Your task to perform on an android device: see creations saved in the google photos Image 0: 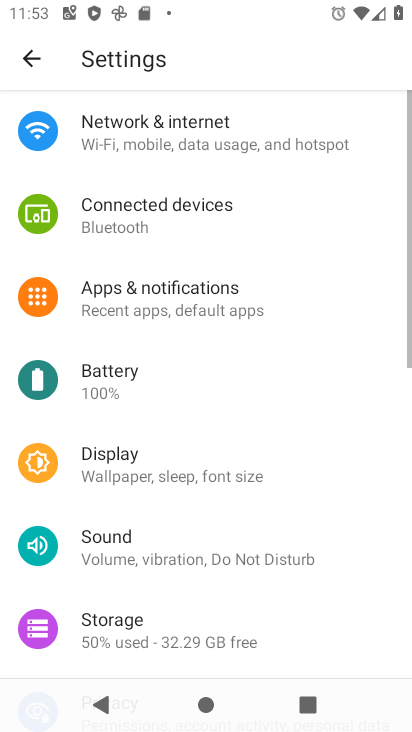
Step 0: press home button
Your task to perform on an android device: see creations saved in the google photos Image 1: 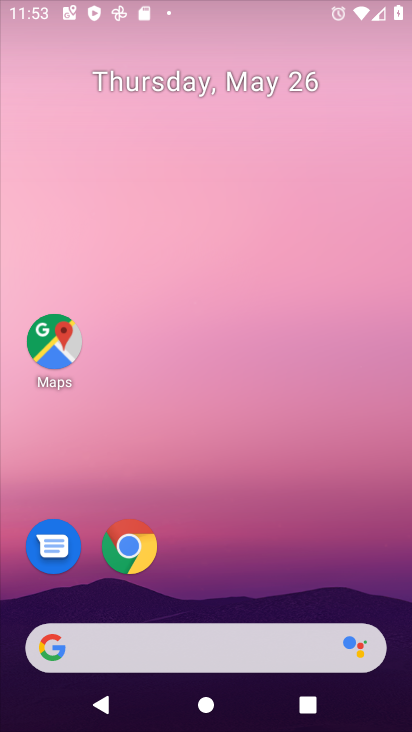
Step 1: drag from (224, 585) to (197, 98)
Your task to perform on an android device: see creations saved in the google photos Image 2: 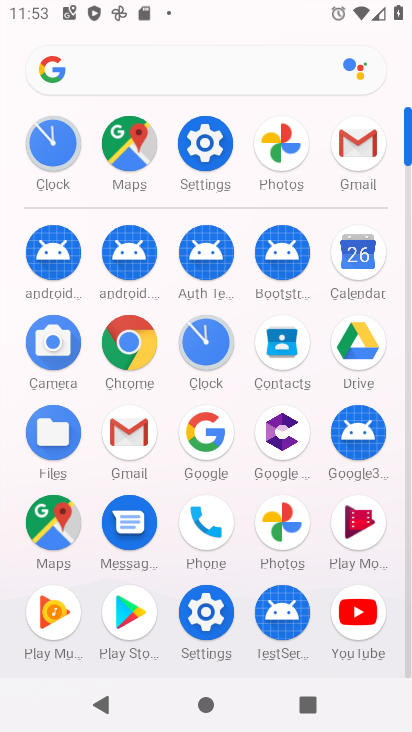
Step 2: click (288, 515)
Your task to perform on an android device: see creations saved in the google photos Image 3: 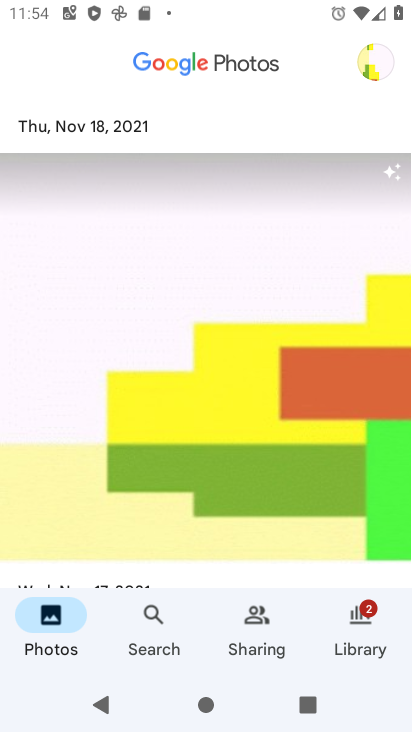
Step 3: click (156, 613)
Your task to perform on an android device: see creations saved in the google photos Image 4: 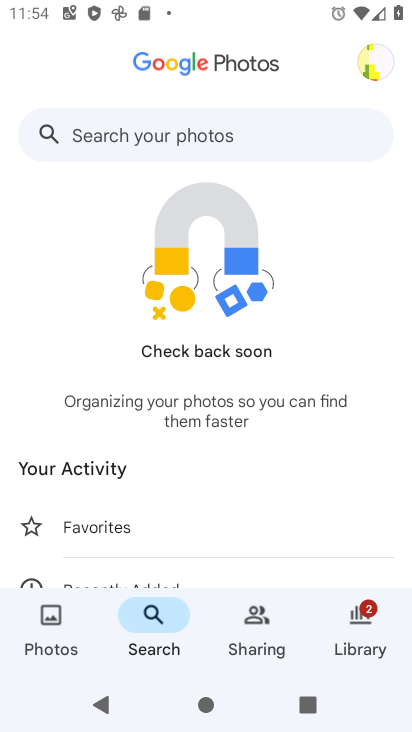
Step 4: click (141, 132)
Your task to perform on an android device: see creations saved in the google photos Image 5: 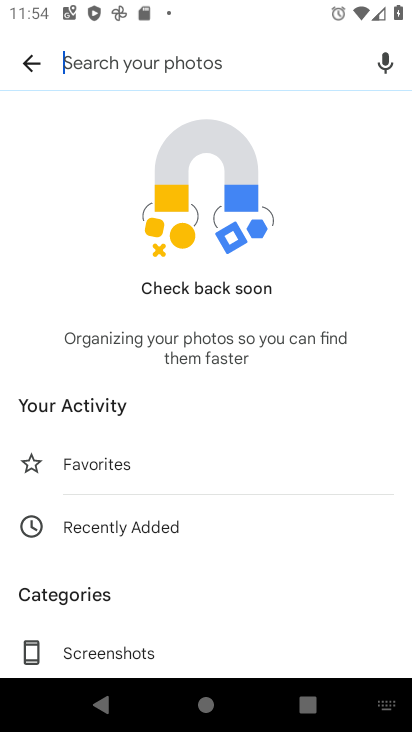
Step 5: drag from (205, 577) to (180, 176)
Your task to perform on an android device: see creations saved in the google photos Image 6: 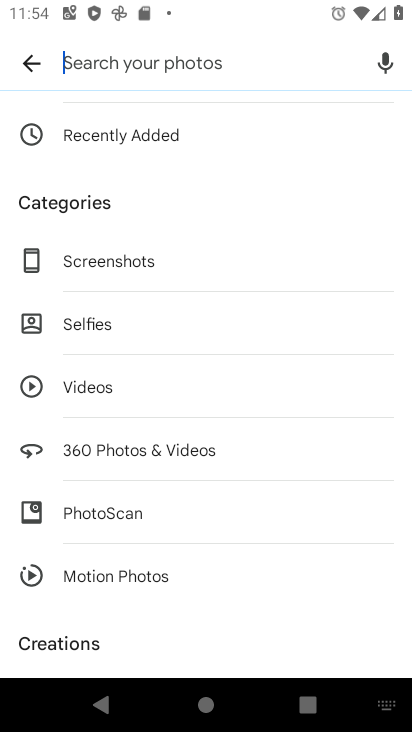
Step 6: drag from (186, 615) to (163, 371)
Your task to perform on an android device: see creations saved in the google photos Image 7: 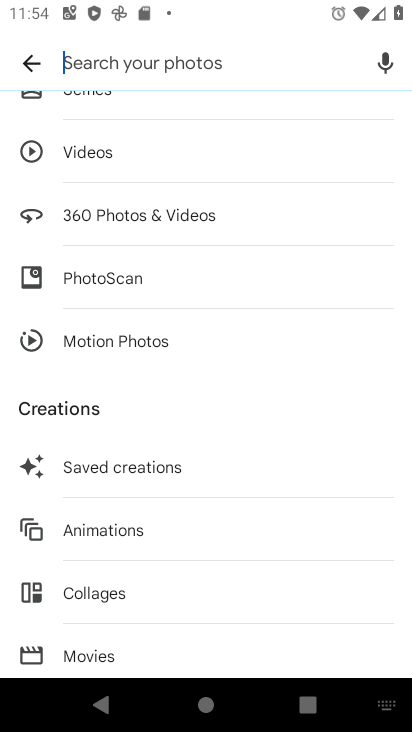
Step 7: click (92, 462)
Your task to perform on an android device: see creations saved in the google photos Image 8: 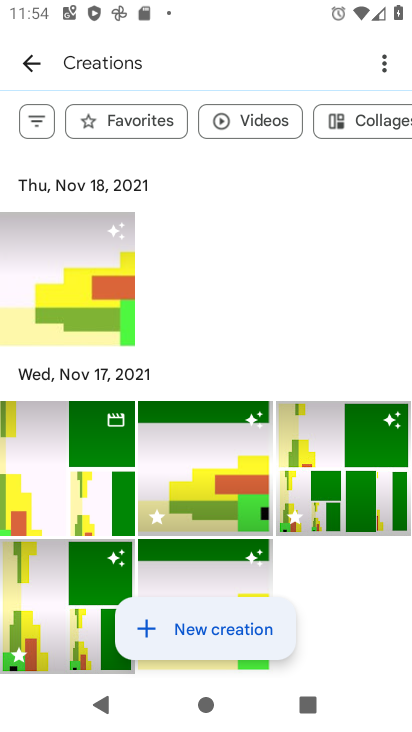
Step 8: task complete